Your task to perform on an android device: find which apps use the phone's location Image 0: 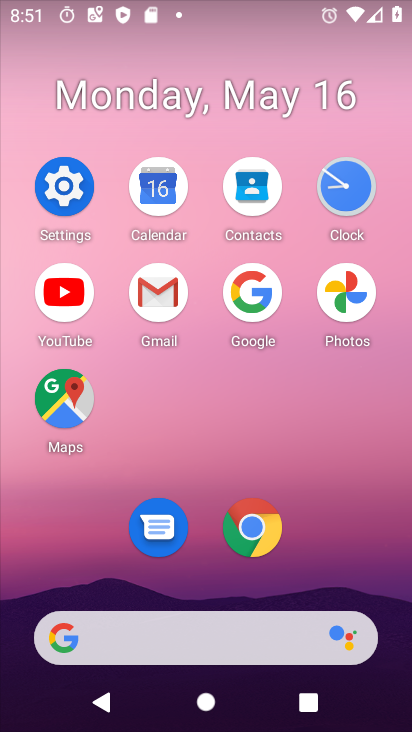
Step 0: click (74, 194)
Your task to perform on an android device: find which apps use the phone's location Image 1: 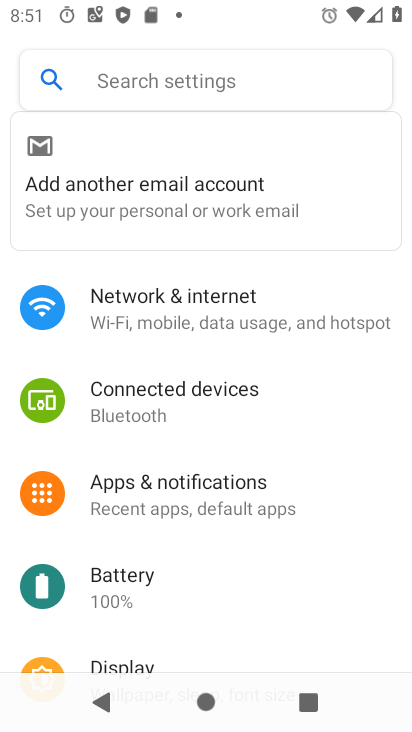
Step 1: drag from (254, 618) to (229, 210)
Your task to perform on an android device: find which apps use the phone's location Image 2: 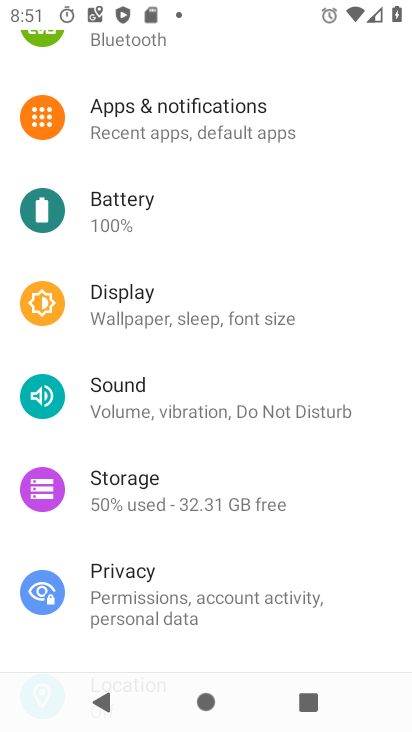
Step 2: drag from (221, 434) to (215, 149)
Your task to perform on an android device: find which apps use the phone's location Image 3: 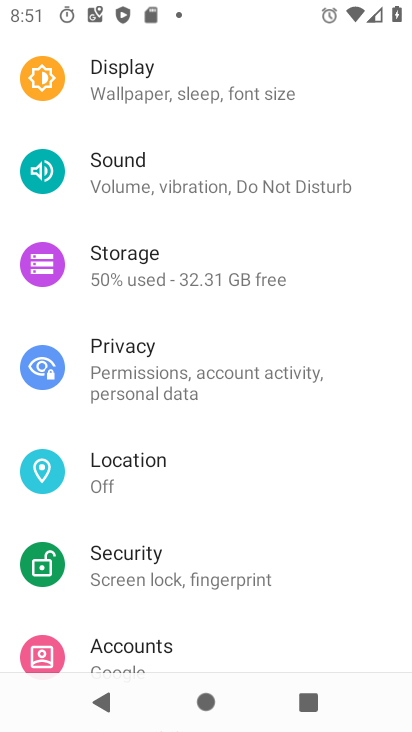
Step 3: click (210, 481)
Your task to perform on an android device: find which apps use the phone's location Image 4: 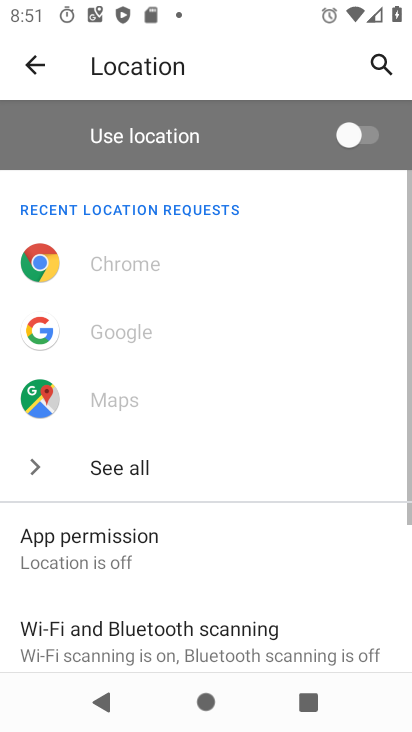
Step 4: task complete